Your task to perform on an android device: What's the weather going to be tomorrow? Image 0: 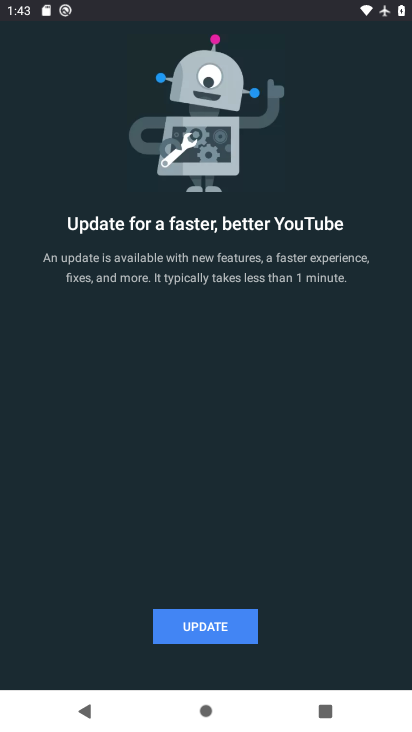
Step 0: press home button
Your task to perform on an android device: What's the weather going to be tomorrow? Image 1: 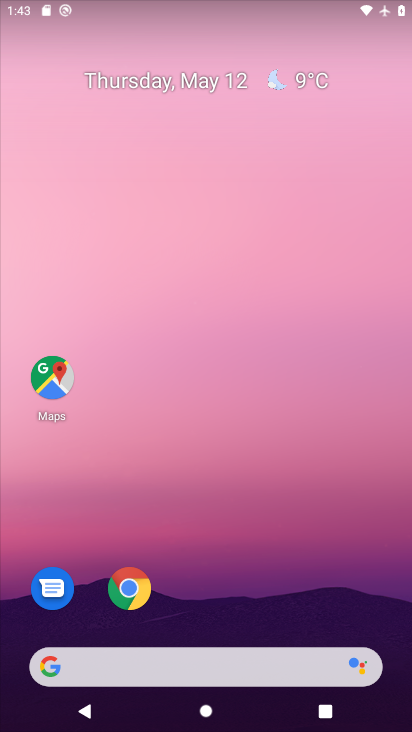
Step 1: click (309, 76)
Your task to perform on an android device: What's the weather going to be tomorrow? Image 2: 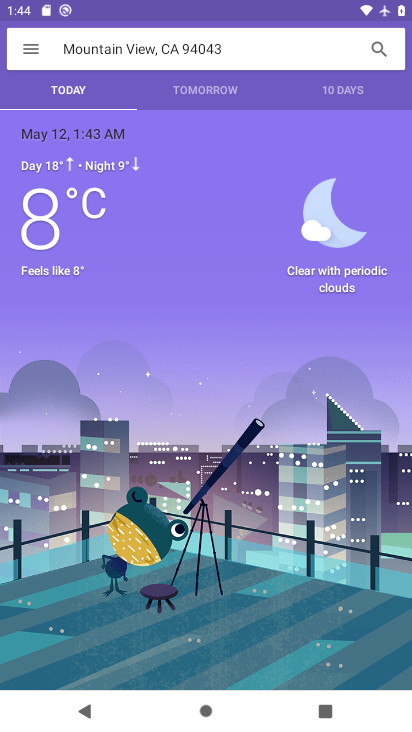
Step 2: task complete